Your task to perform on an android device: Search for sushi restaurants on Maps Image 0: 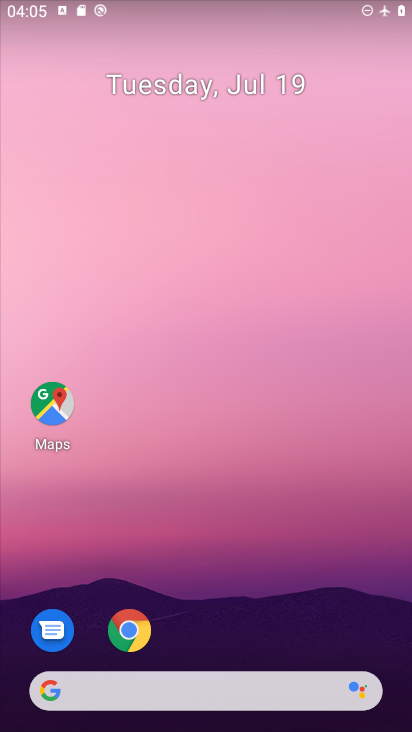
Step 0: click (51, 404)
Your task to perform on an android device: Search for sushi restaurants on Maps Image 1: 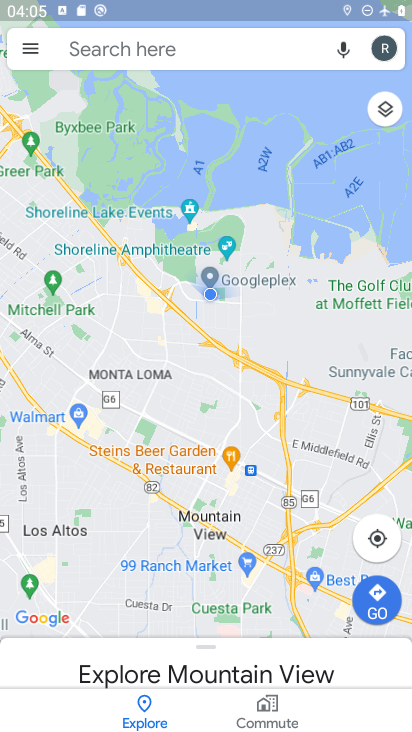
Step 1: click (98, 44)
Your task to perform on an android device: Search for sushi restaurants on Maps Image 2: 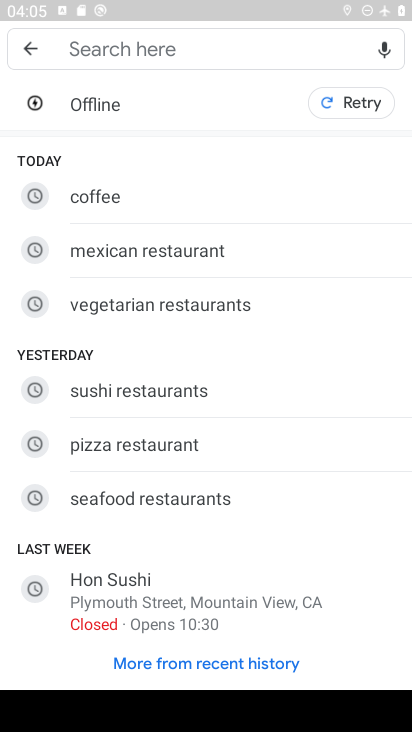
Step 2: type "sushi restaurants"
Your task to perform on an android device: Search for sushi restaurants on Maps Image 3: 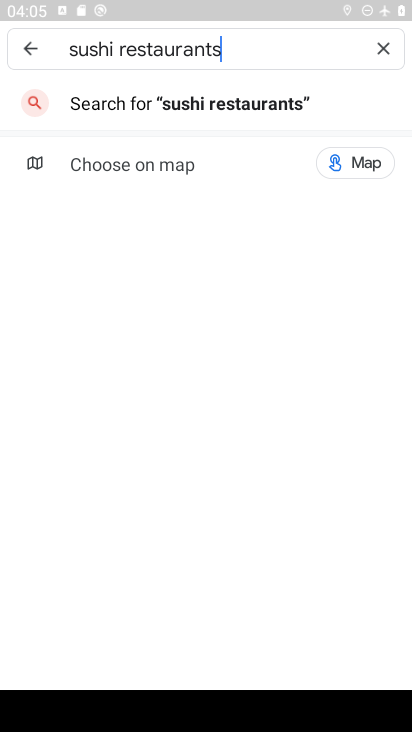
Step 3: click (211, 103)
Your task to perform on an android device: Search for sushi restaurants on Maps Image 4: 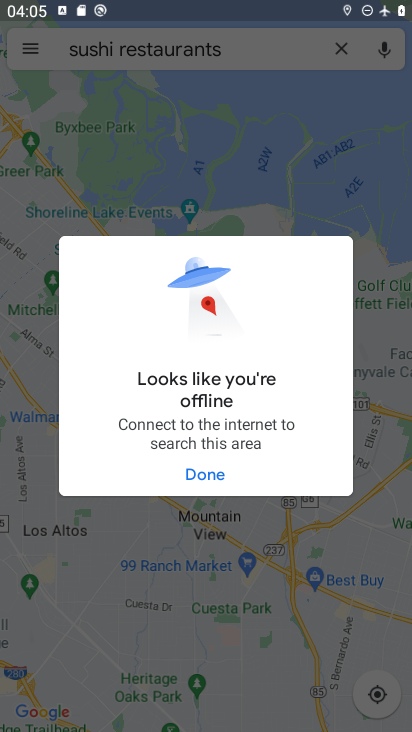
Step 4: click (208, 478)
Your task to perform on an android device: Search for sushi restaurants on Maps Image 5: 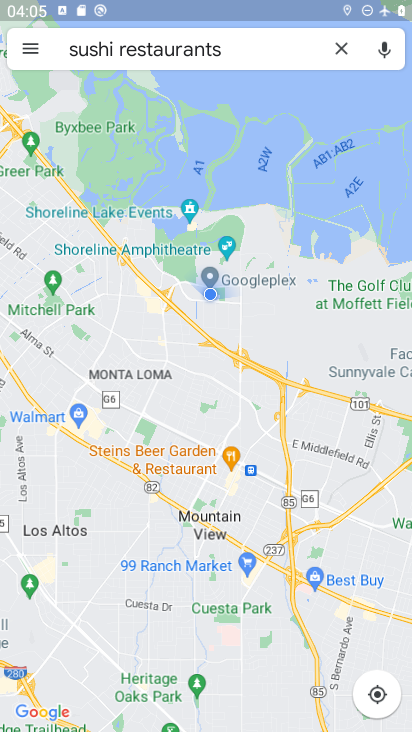
Step 5: task complete